Your task to perform on an android device: change the clock display to show seconds Image 0: 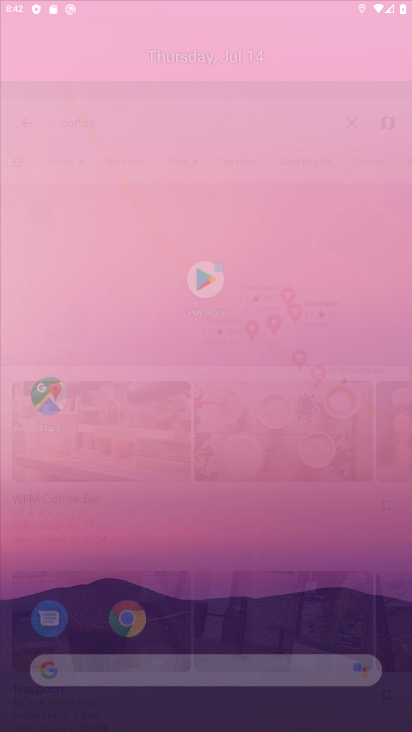
Step 0: drag from (332, 275) to (368, 130)
Your task to perform on an android device: change the clock display to show seconds Image 1: 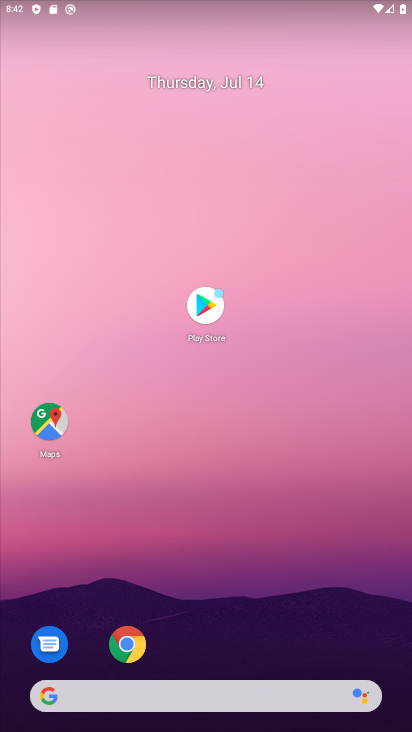
Step 1: drag from (200, 613) to (318, 8)
Your task to perform on an android device: change the clock display to show seconds Image 2: 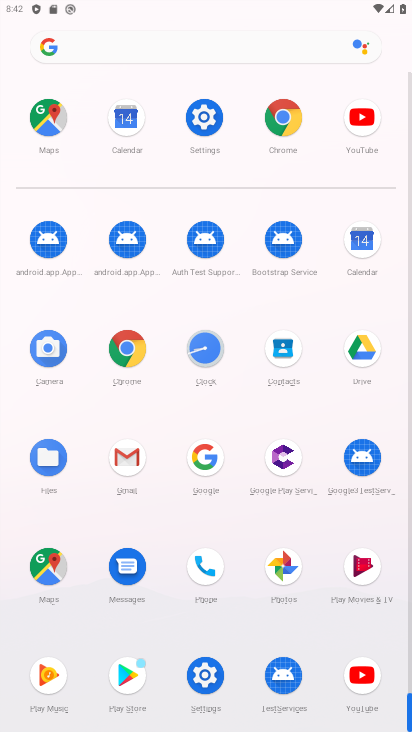
Step 2: click (203, 343)
Your task to perform on an android device: change the clock display to show seconds Image 3: 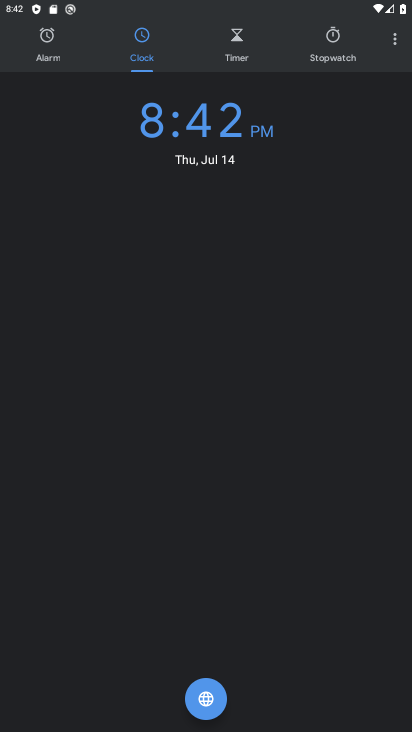
Step 3: click (395, 32)
Your task to perform on an android device: change the clock display to show seconds Image 4: 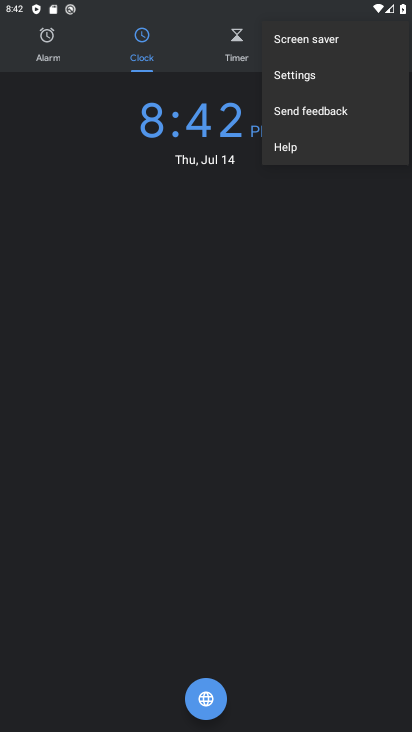
Step 4: click (327, 67)
Your task to perform on an android device: change the clock display to show seconds Image 5: 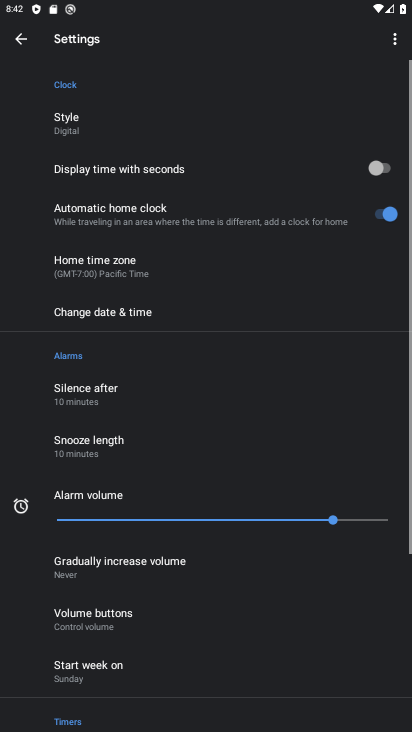
Step 5: drag from (199, 525) to (289, 124)
Your task to perform on an android device: change the clock display to show seconds Image 6: 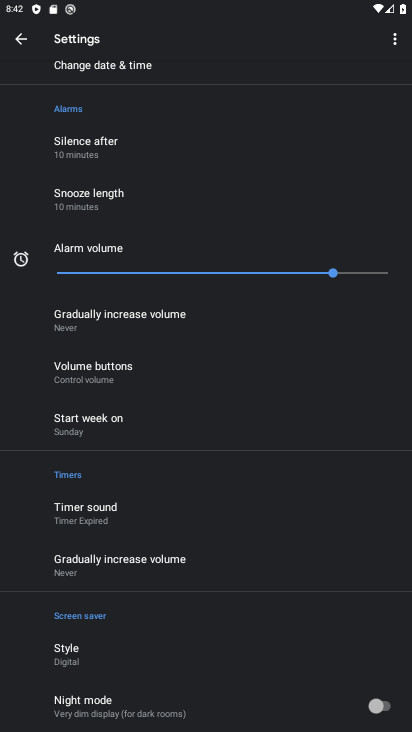
Step 6: drag from (213, 543) to (246, 225)
Your task to perform on an android device: change the clock display to show seconds Image 7: 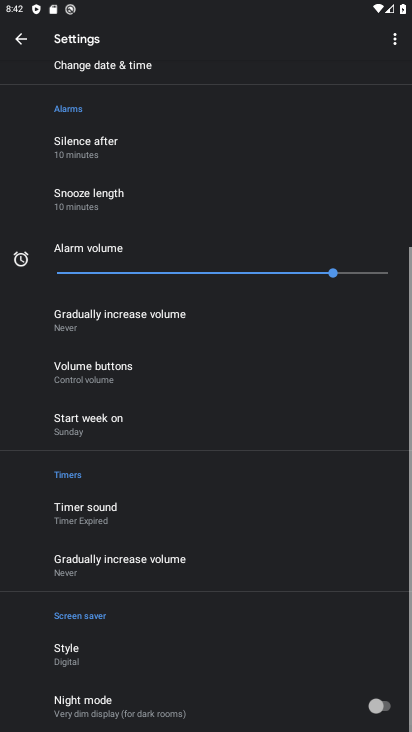
Step 7: drag from (255, 159) to (204, 660)
Your task to perform on an android device: change the clock display to show seconds Image 8: 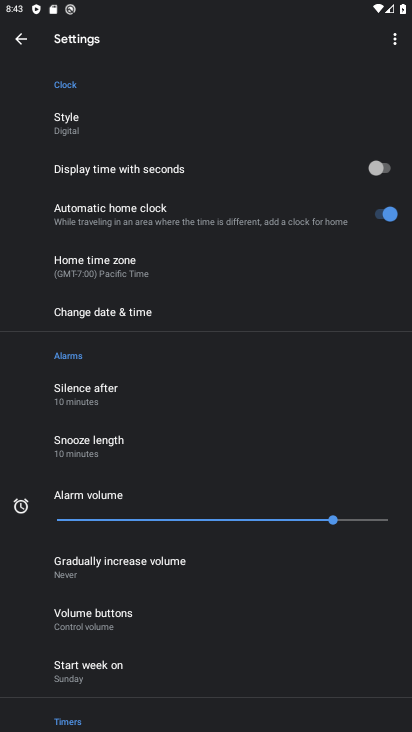
Step 8: click (261, 171)
Your task to perform on an android device: change the clock display to show seconds Image 9: 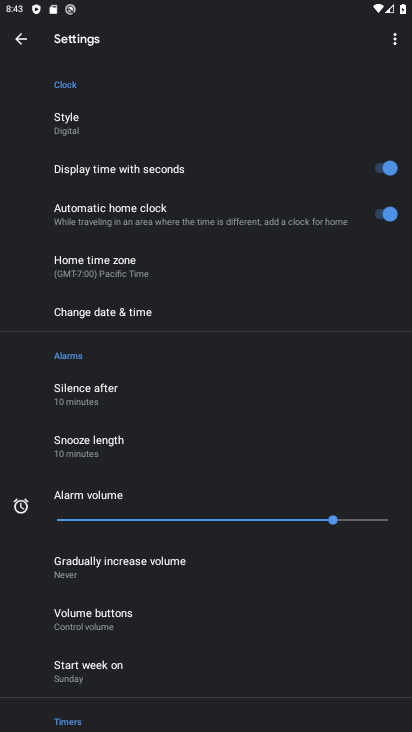
Step 9: task complete